Your task to perform on an android device: Do I have any events this weekend? Image 0: 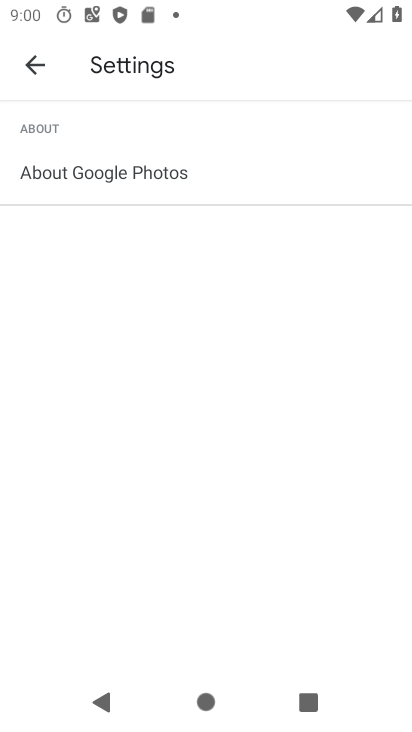
Step 0: press home button
Your task to perform on an android device: Do I have any events this weekend? Image 1: 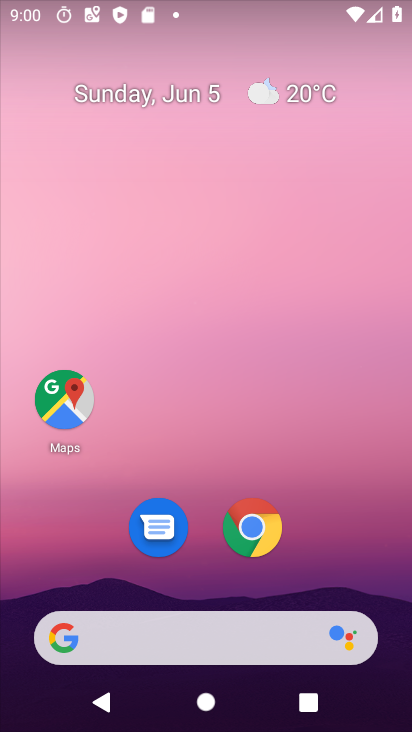
Step 1: drag from (378, 536) to (408, 133)
Your task to perform on an android device: Do I have any events this weekend? Image 2: 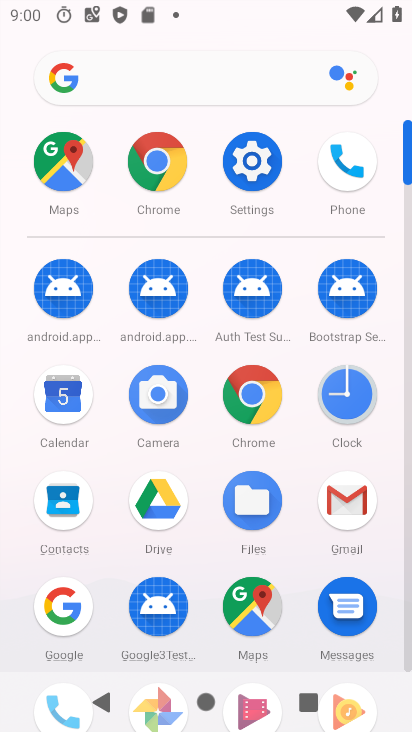
Step 2: click (73, 393)
Your task to perform on an android device: Do I have any events this weekend? Image 3: 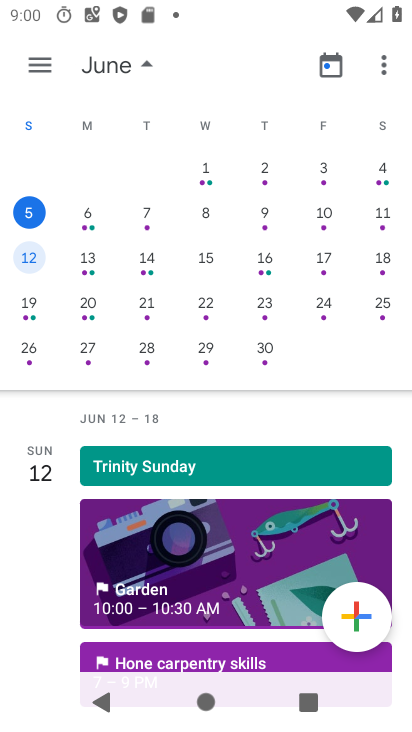
Step 3: click (327, 215)
Your task to perform on an android device: Do I have any events this weekend? Image 4: 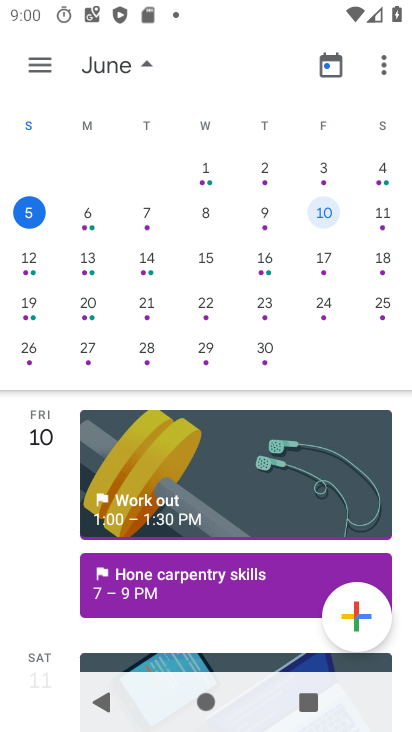
Step 4: task complete